Your task to perform on an android device: see sites visited before in the chrome app Image 0: 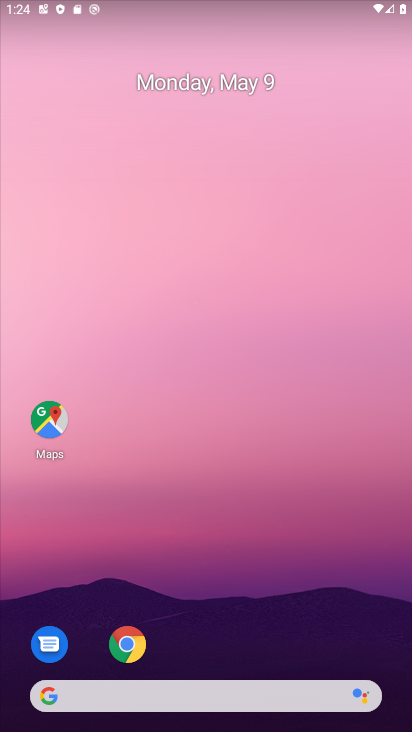
Step 0: drag from (300, 550) to (300, 110)
Your task to perform on an android device: see sites visited before in the chrome app Image 1: 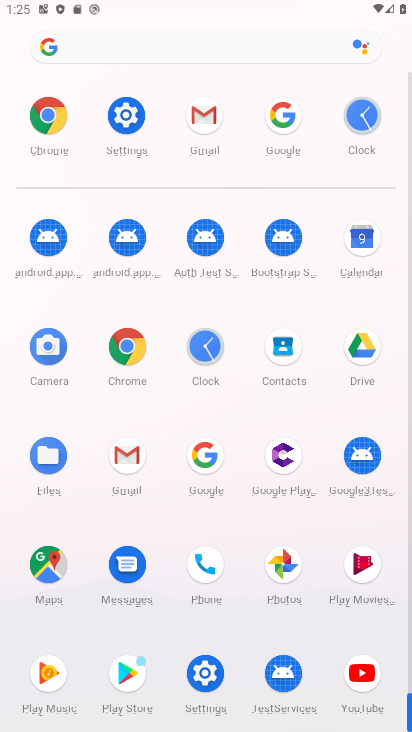
Step 1: click (138, 379)
Your task to perform on an android device: see sites visited before in the chrome app Image 2: 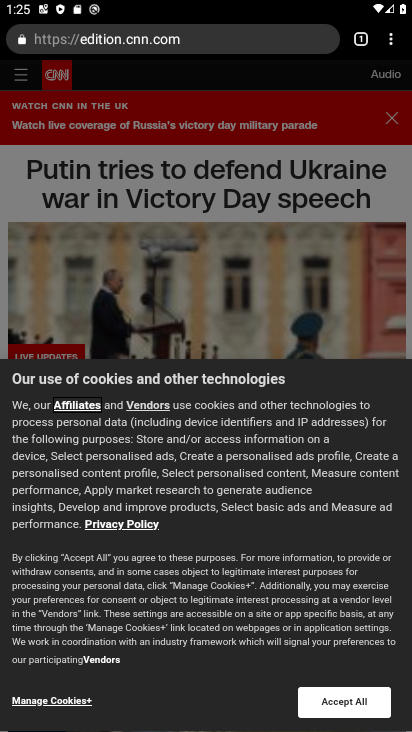
Step 2: click (389, 46)
Your task to perform on an android device: see sites visited before in the chrome app Image 3: 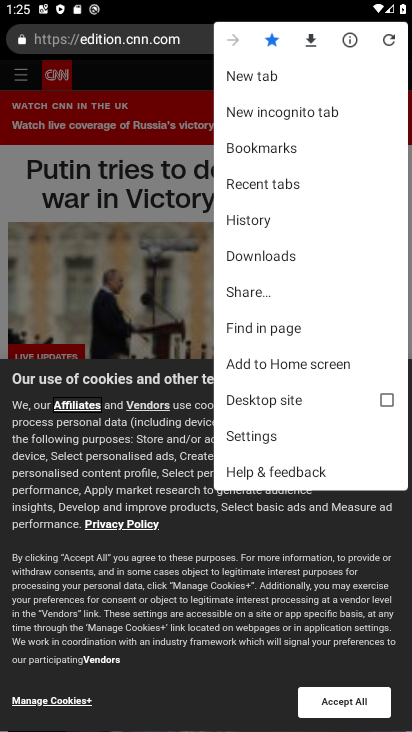
Step 3: click (269, 229)
Your task to perform on an android device: see sites visited before in the chrome app Image 4: 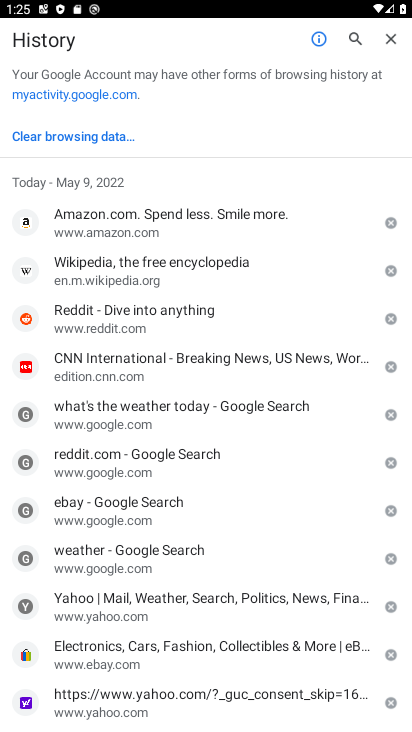
Step 4: task complete